Your task to perform on an android device: turn notification dots off Image 0: 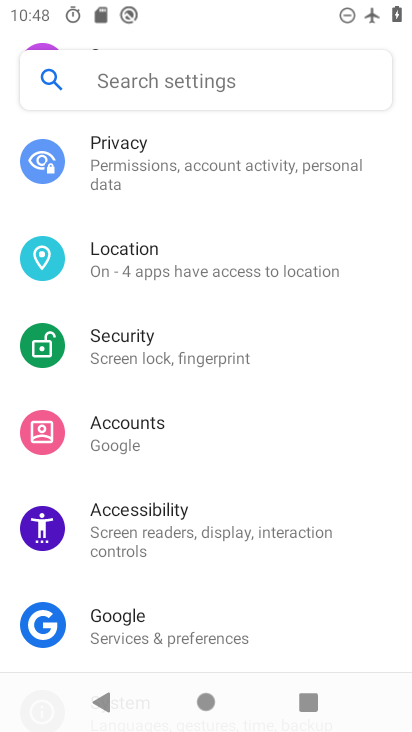
Step 0: drag from (303, 257) to (284, 443)
Your task to perform on an android device: turn notification dots off Image 1: 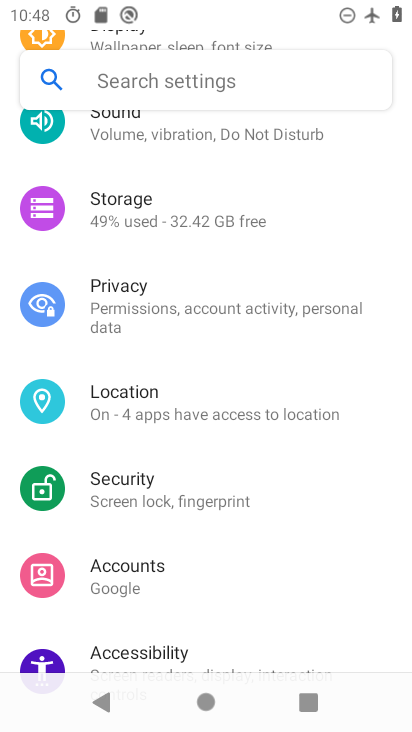
Step 1: drag from (215, 319) to (200, 527)
Your task to perform on an android device: turn notification dots off Image 2: 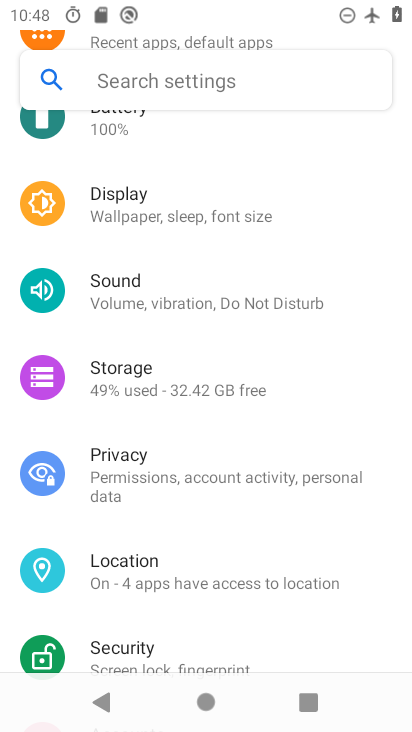
Step 2: drag from (171, 231) to (127, 528)
Your task to perform on an android device: turn notification dots off Image 3: 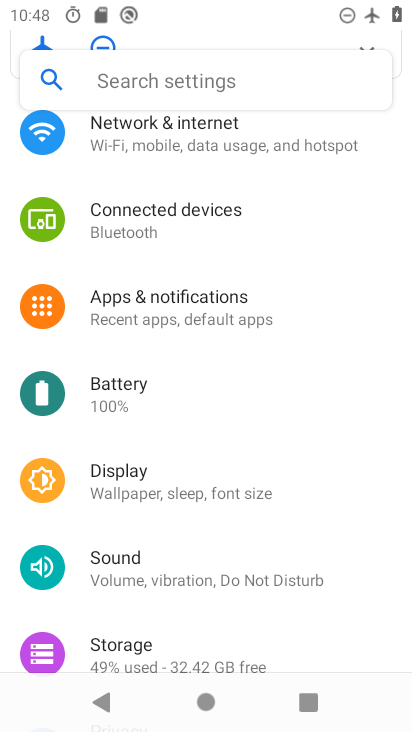
Step 3: click (186, 303)
Your task to perform on an android device: turn notification dots off Image 4: 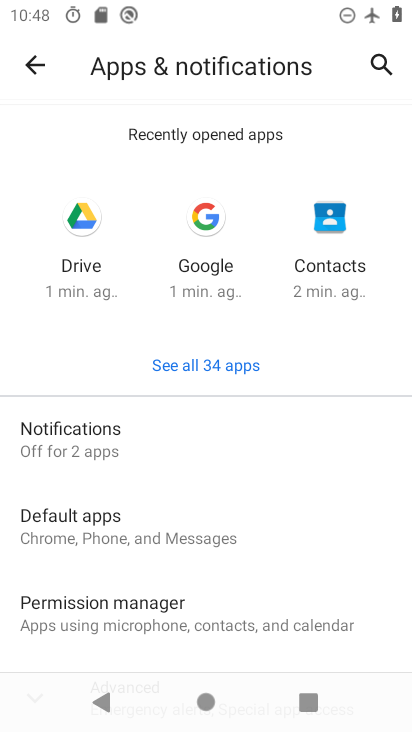
Step 4: click (164, 444)
Your task to perform on an android device: turn notification dots off Image 5: 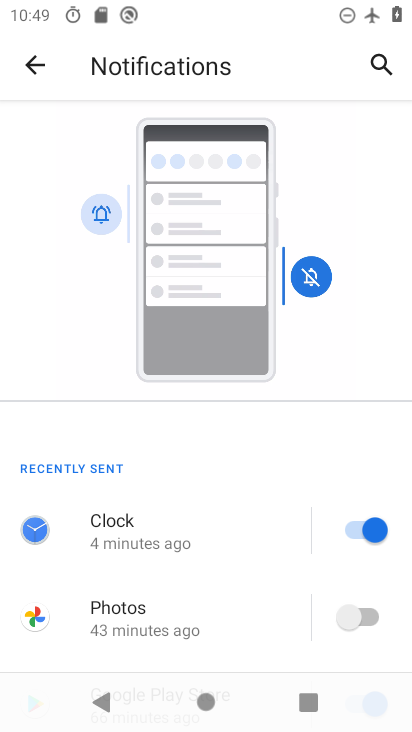
Step 5: drag from (177, 567) to (201, 293)
Your task to perform on an android device: turn notification dots off Image 6: 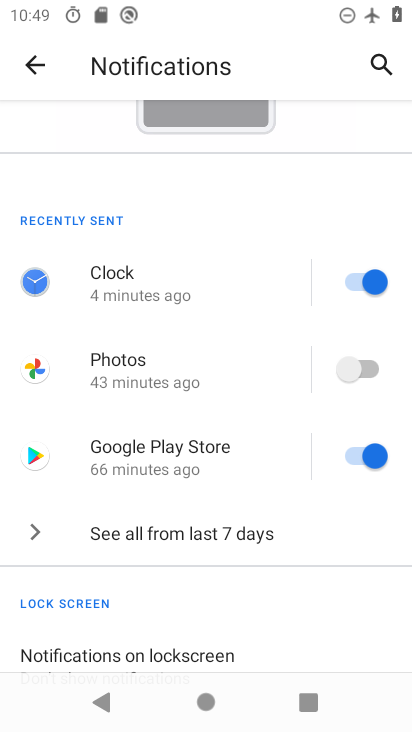
Step 6: drag from (176, 494) to (217, 301)
Your task to perform on an android device: turn notification dots off Image 7: 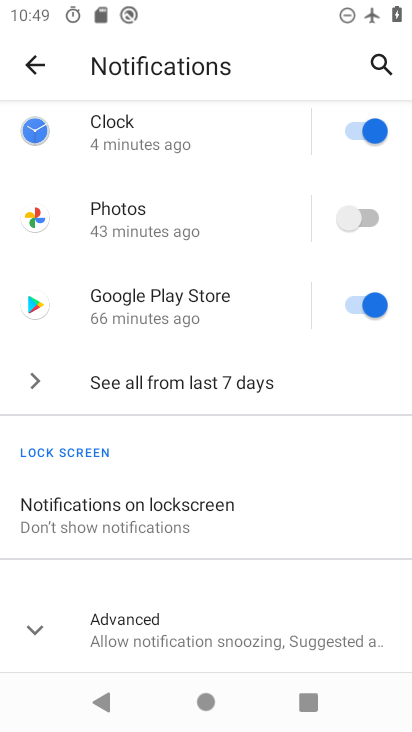
Step 7: click (214, 623)
Your task to perform on an android device: turn notification dots off Image 8: 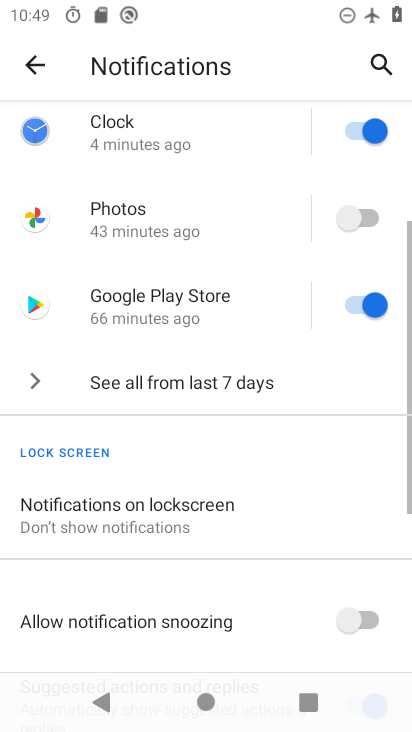
Step 8: task complete